Your task to perform on an android device: Go to settings Image 0: 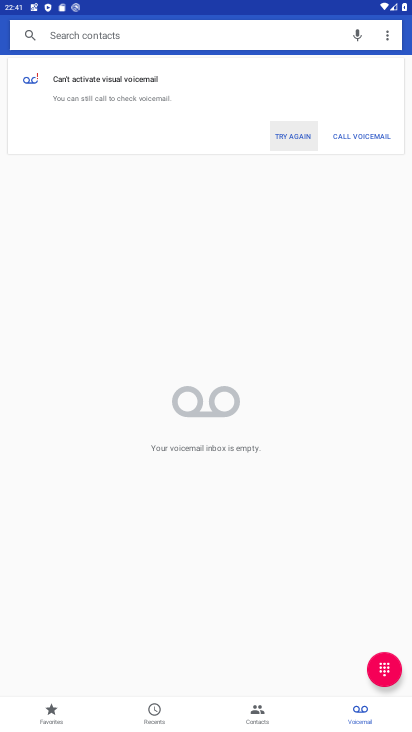
Step 0: press home button
Your task to perform on an android device: Go to settings Image 1: 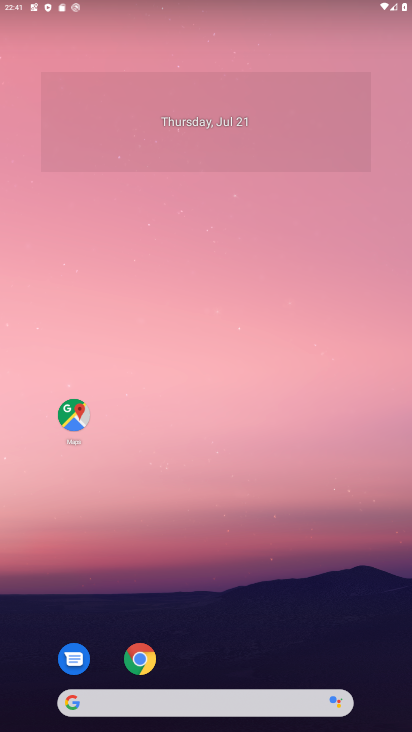
Step 1: drag from (269, 594) to (267, 93)
Your task to perform on an android device: Go to settings Image 2: 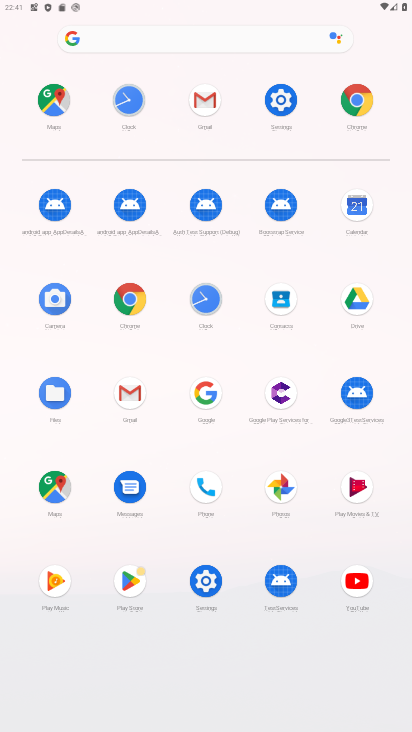
Step 2: click (277, 101)
Your task to perform on an android device: Go to settings Image 3: 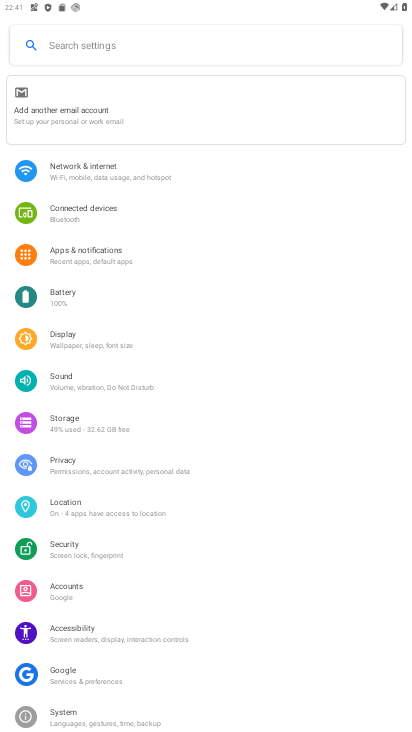
Step 3: task complete